Your task to perform on an android device: change your default location settings in chrome Image 0: 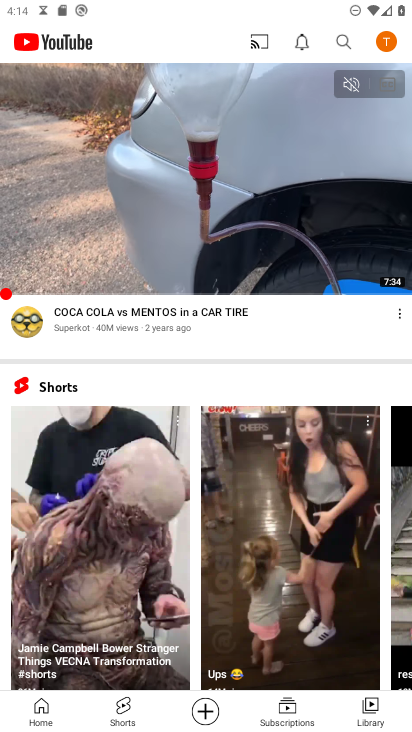
Step 0: press home button
Your task to perform on an android device: change your default location settings in chrome Image 1: 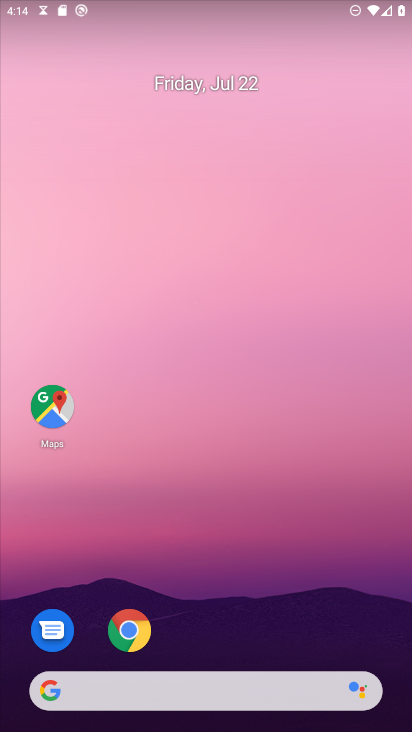
Step 1: drag from (214, 646) to (226, 51)
Your task to perform on an android device: change your default location settings in chrome Image 2: 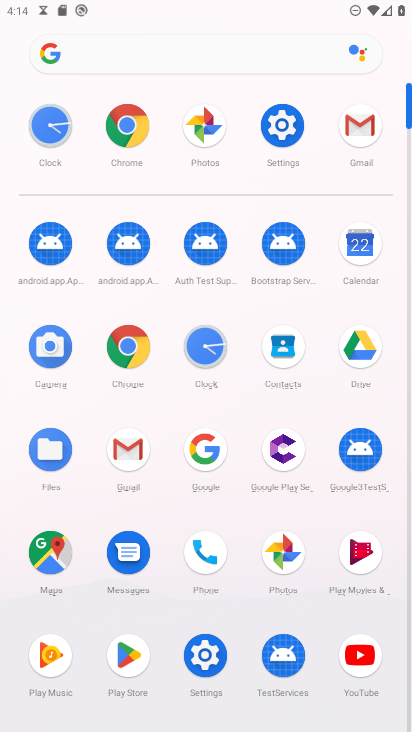
Step 2: click (127, 353)
Your task to perform on an android device: change your default location settings in chrome Image 3: 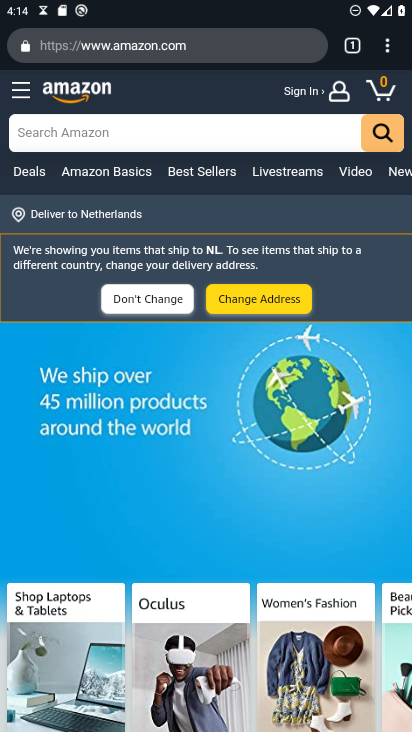
Step 3: click (388, 47)
Your task to perform on an android device: change your default location settings in chrome Image 4: 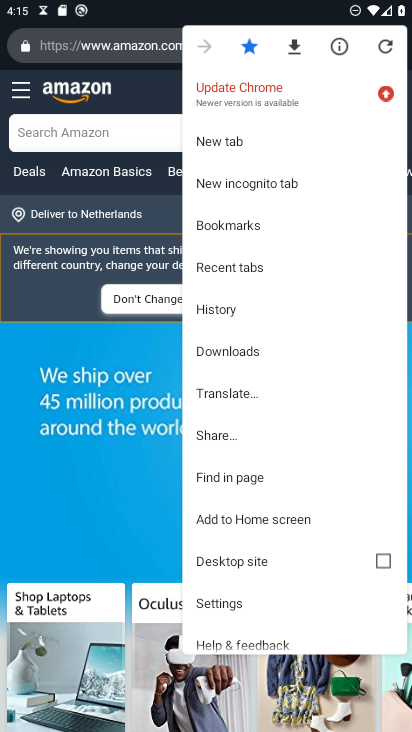
Step 4: click (218, 601)
Your task to perform on an android device: change your default location settings in chrome Image 5: 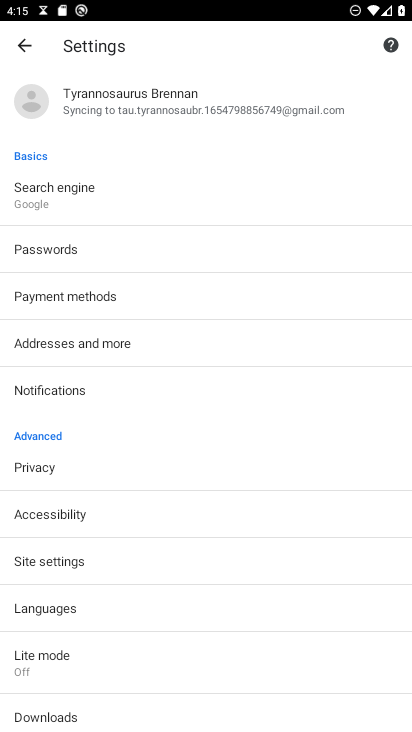
Step 5: click (54, 563)
Your task to perform on an android device: change your default location settings in chrome Image 6: 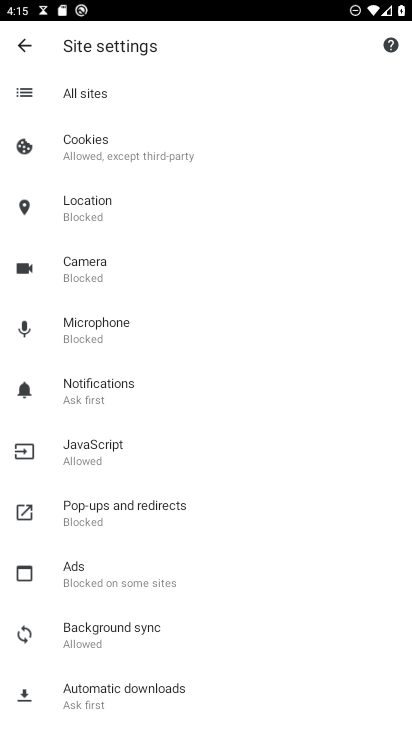
Step 6: click (96, 207)
Your task to perform on an android device: change your default location settings in chrome Image 7: 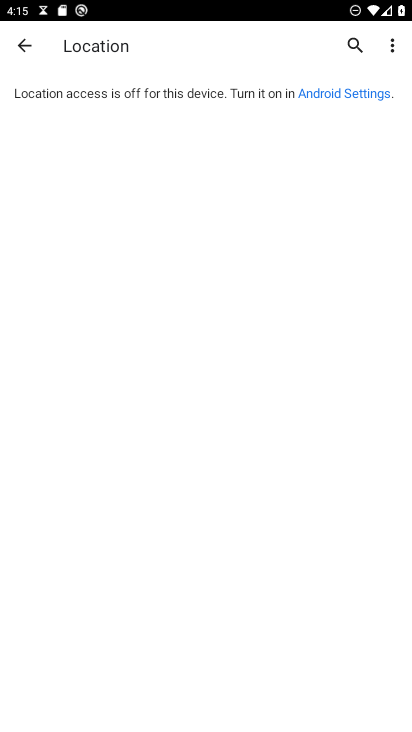
Step 7: click (339, 93)
Your task to perform on an android device: change your default location settings in chrome Image 8: 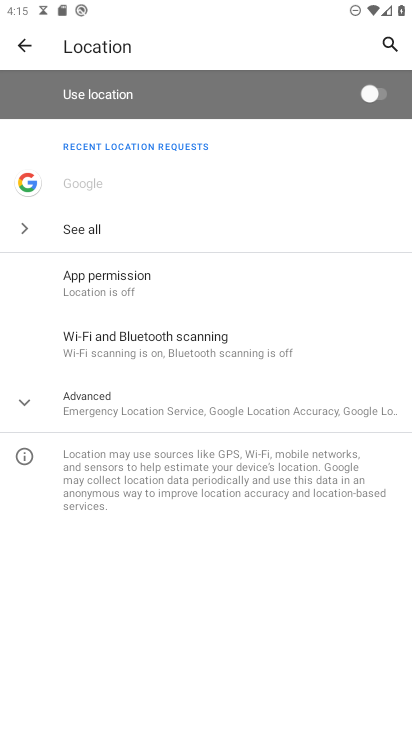
Step 8: click (336, 104)
Your task to perform on an android device: change your default location settings in chrome Image 9: 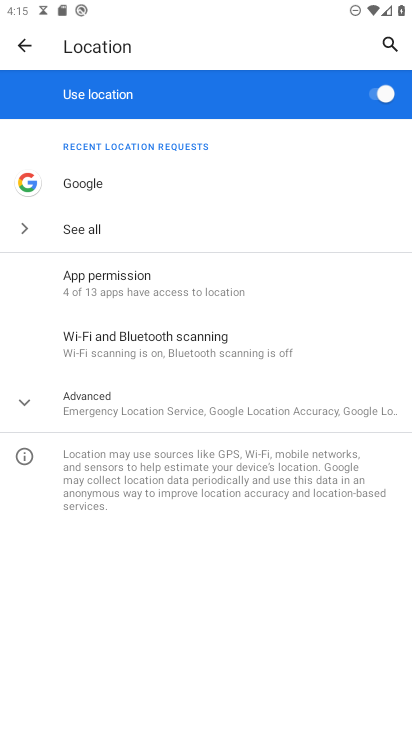
Step 9: task complete